Your task to perform on an android device: open a bookmark in the chrome app Image 0: 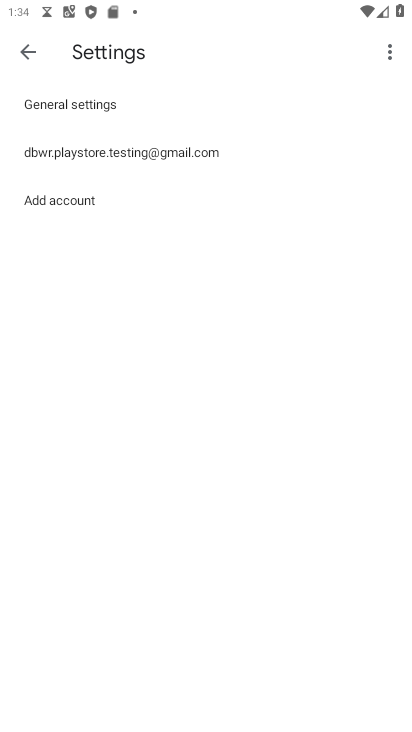
Step 0: press home button
Your task to perform on an android device: open a bookmark in the chrome app Image 1: 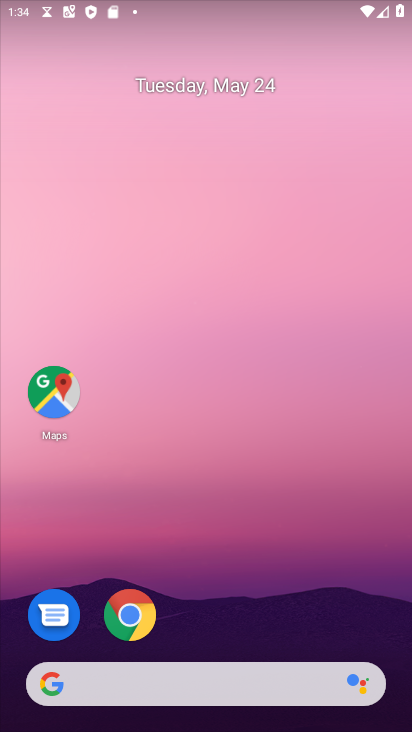
Step 1: click (127, 610)
Your task to perform on an android device: open a bookmark in the chrome app Image 2: 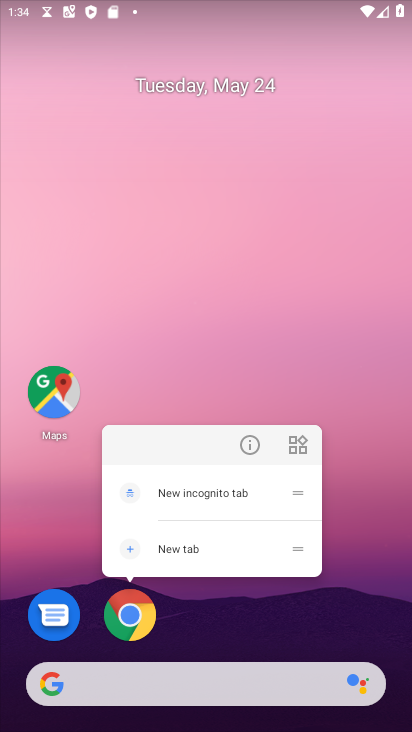
Step 2: click (126, 610)
Your task to perform on an android device: open a bookmark in the chrome app Image 3: 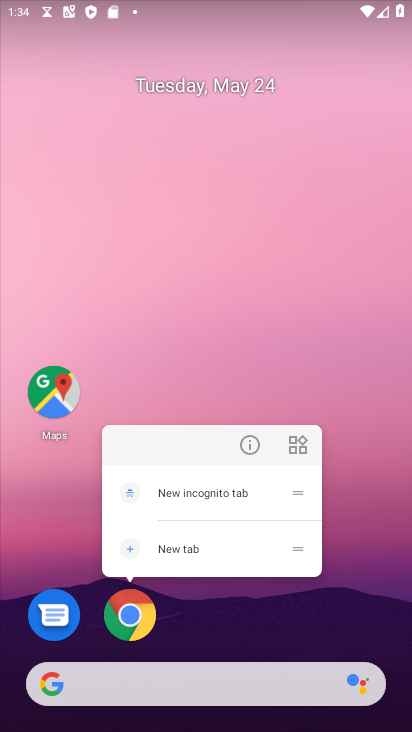
Step 3: click (127, 605)
Your task to perform on an android device: open a bookmark in the chrome app Image 4: 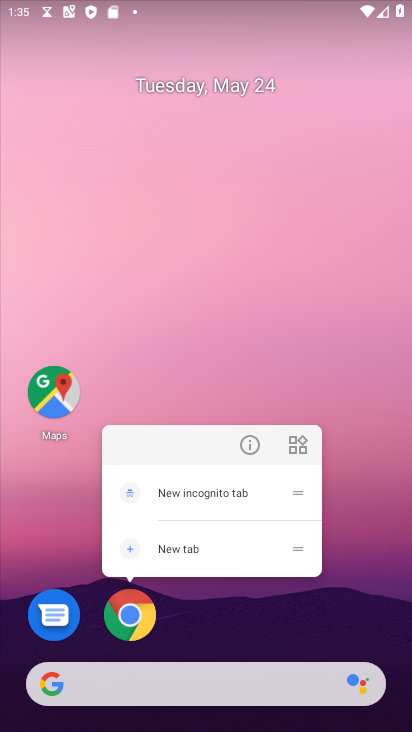
Step 4: click (127, 610)
Your task to perform on an android device: open a bookmark in the chrome app Image 5: 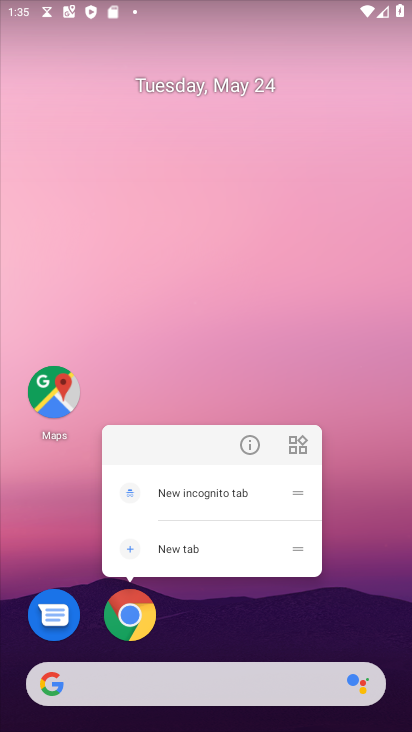
Step 5: click (127, 610)
Your task to perform on an android device: open a bookmark in the chrome app Image 6: 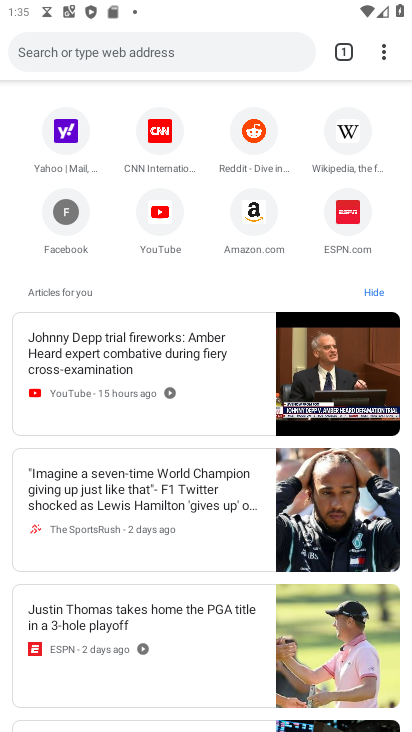
Step 6: click (379, 45)
Your task to perform on an android device: open a bookmark in the chrome app Image 7: 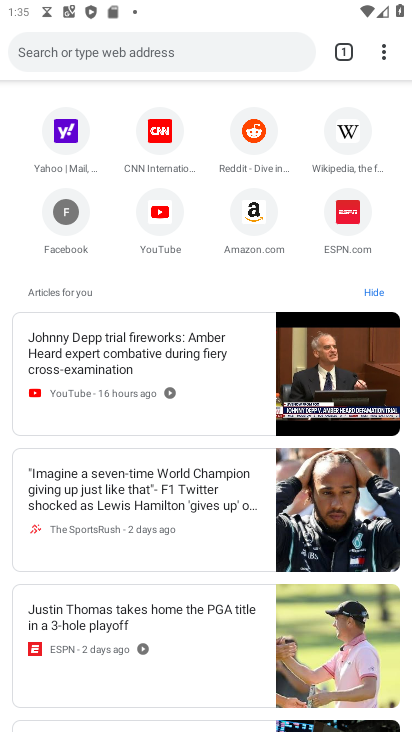
Step 7: click (383, 49)
Your task to perform on an android device: open a bookmark in the chrome app Image 8: 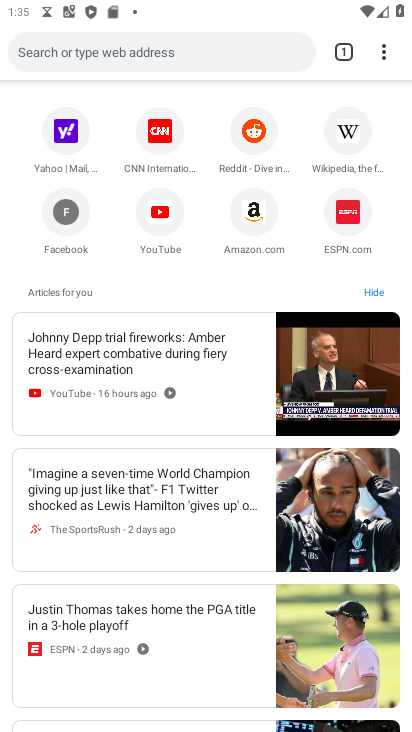
Step 8: click (385, 50)
Your task to perform on an android device: open a bookmark in the chrome app Image 9: 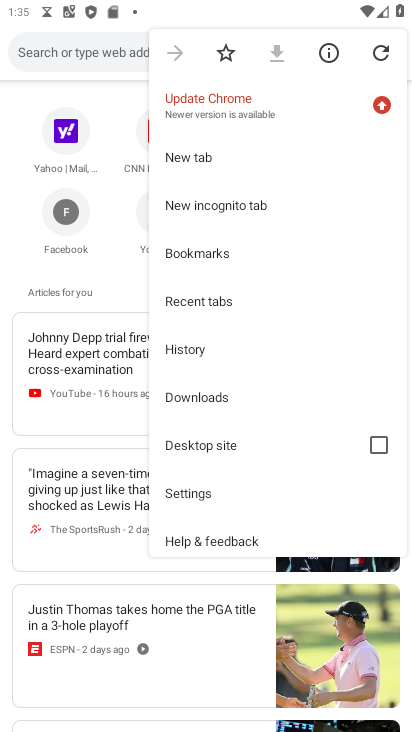
Step 9: click (235, 252)
Your task to perform on an android device: open a bookmark in the chrome app Image 10: 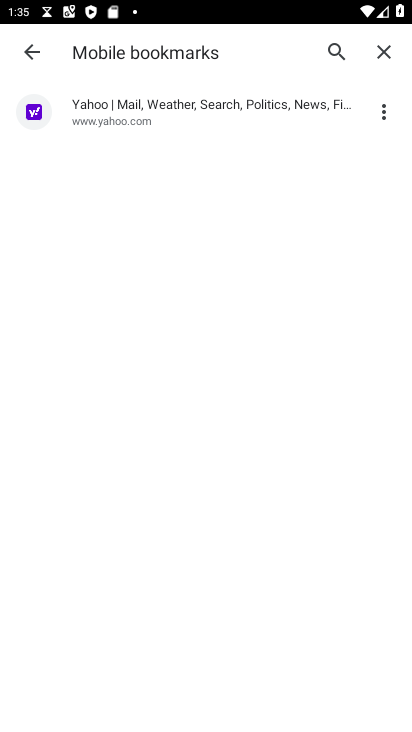
Step 10: click (383, 106)
Your task to perform on an android device: open a bookmark in the chrome app Image 11: 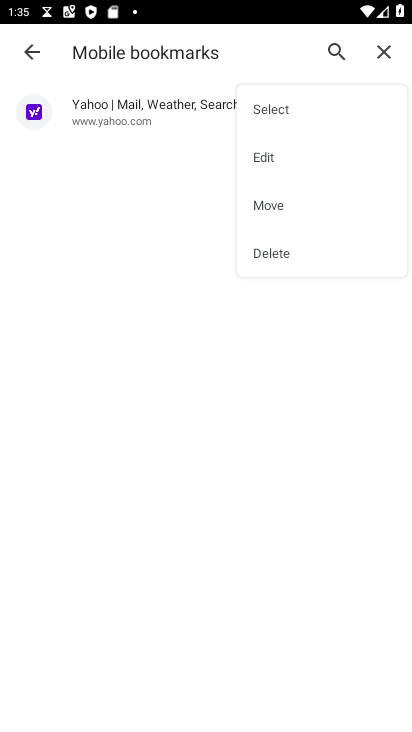
Step 11: click (152, 176)
Your task to perform on an android device: open a bookmark in the chrome app Image 12: 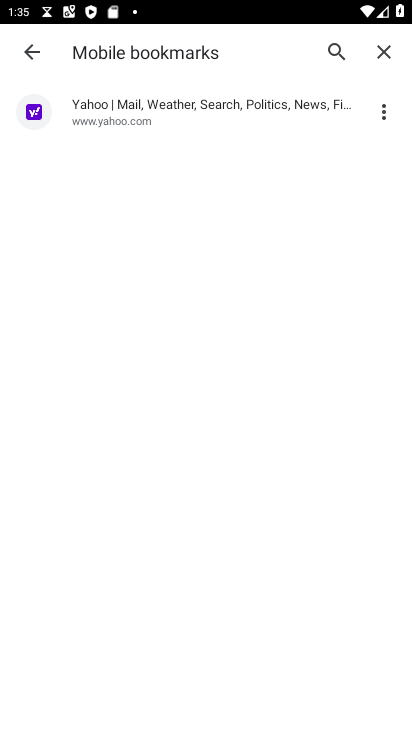
Step 12: task complete